Your task to perform on an android device: turn on priority inbox in the gmail app Image 0: 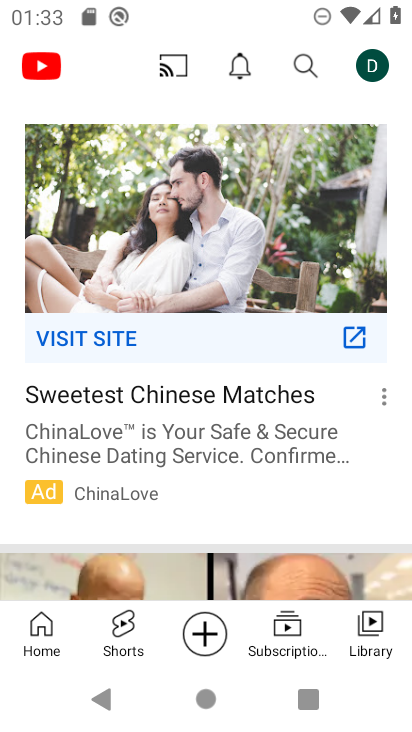
Step 0: press home button
Your task to perform on an android device: turn on priority inbox in the gmail app Image 1: 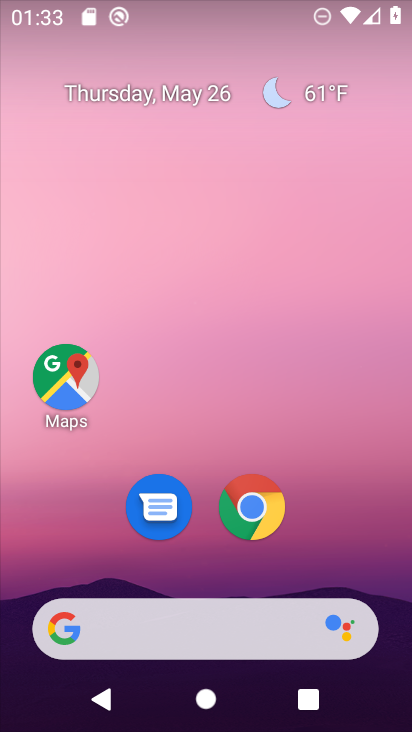
Step 1: drag from (348, 556) to (310, 165)
Your task to perform on an android device: turn on priority inbox in the gmail app Image 2: 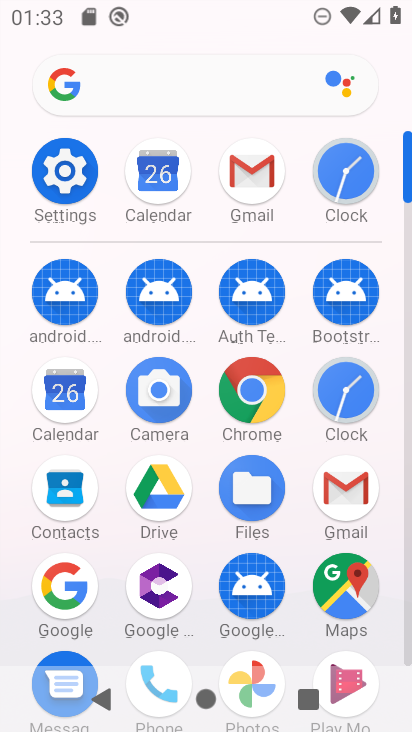
Step 2: click (244, 187)
Your task to perform on an android device: turn on priority inbox in the gmail app Image 3: 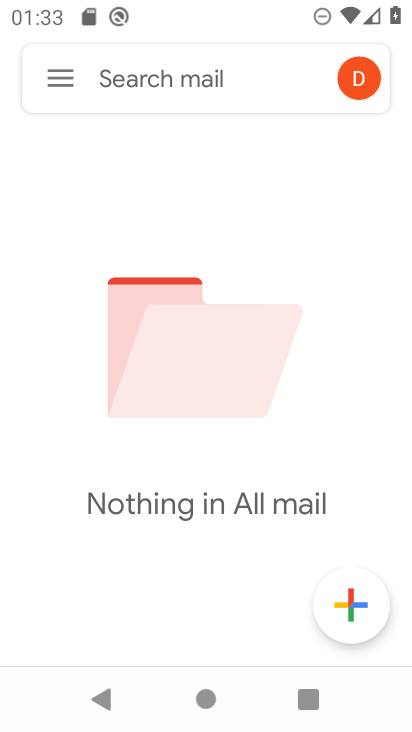
Step 3: click (46, 77)
Your task to perform on an android device: turn on priority inbox in the gmail app Image 4: 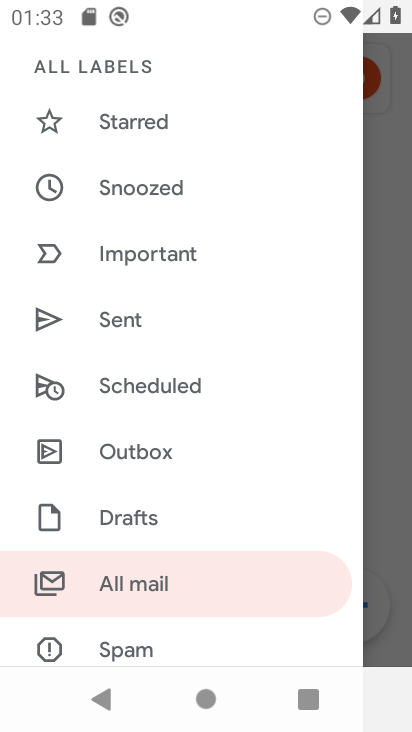
Step 4: drag from (101, 538) to (110, 226)
Your task to perform on an android device: turn on priority inbox in the gmail app Image 5: 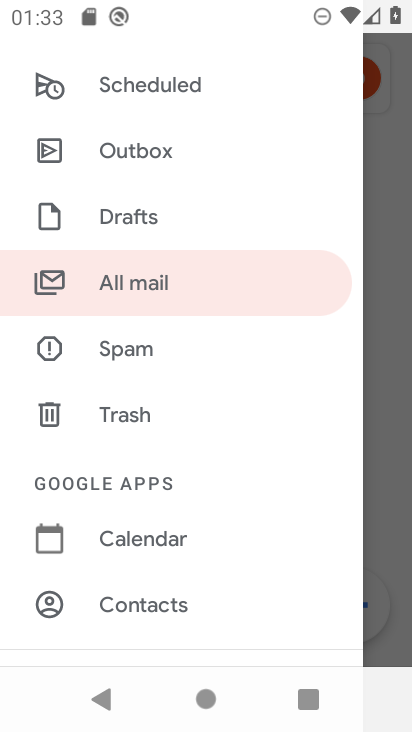
Step 5: drag from (144, 599) to (245, 109)
Your task to perform on an android device: turn on priority inbox in the gmail app Image 6: 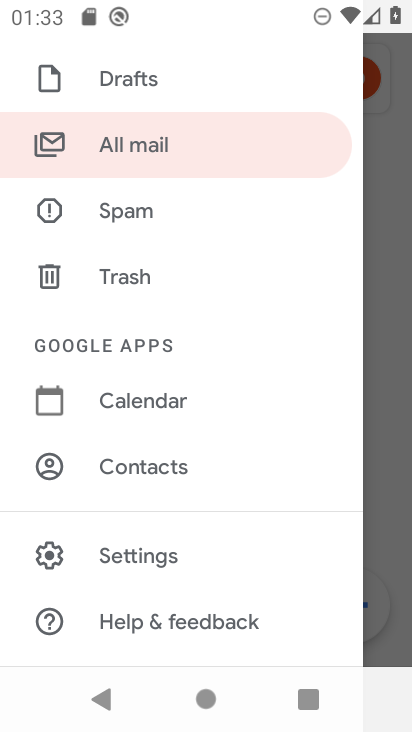
Step 6: click (184, 573)
Your task to perform on an android device: turn on priority inbox in the gmail app Image 7: 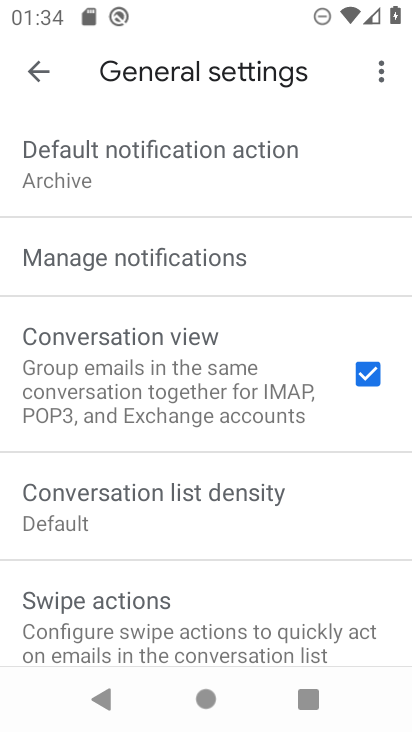
Step 7: click (42, 72)
Your task to perform on an android device: turn on priority inbox in the gmail app Image 8: 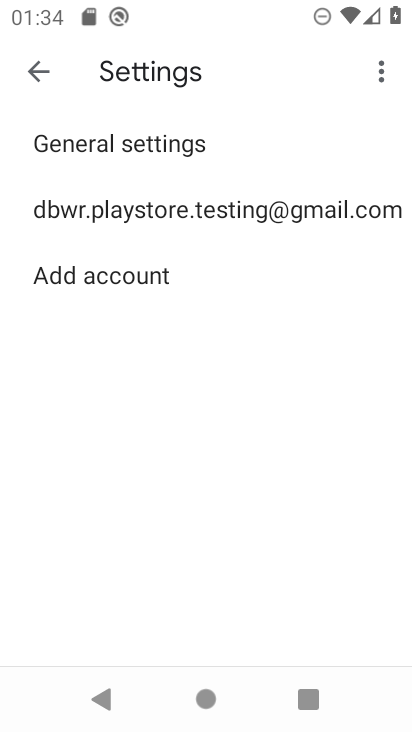
Step 8: click (162, 234)
Your task to perform on an android device: turn on priority inbox in the gmail app Image 9: 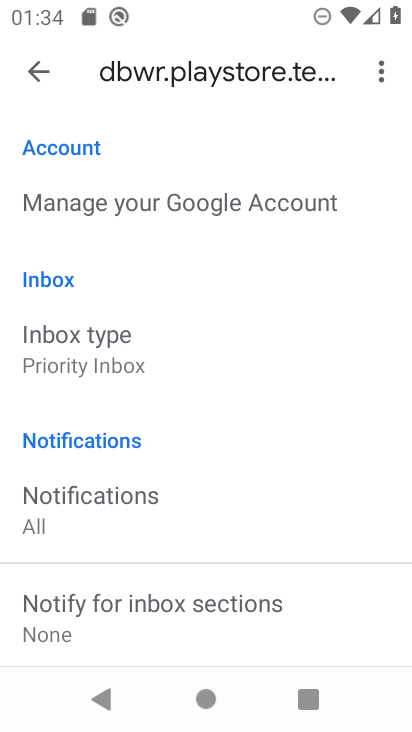
Step 9: task complete